Your task to perform on an android device: Open Chrome and go to settings Image 0: 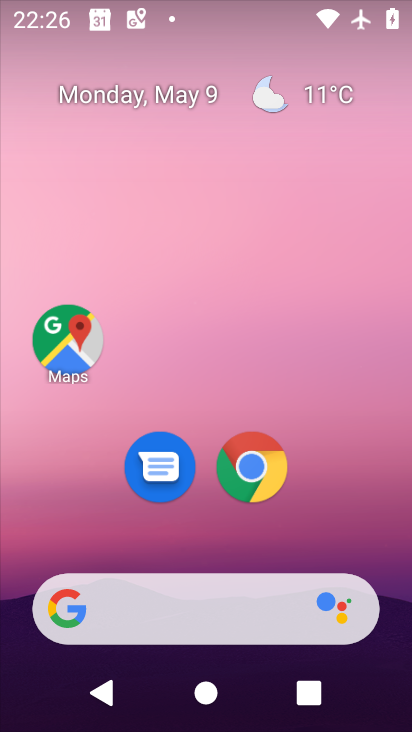
Step 0: drag from (339, 290) to (347, 196)
Your task to perform on an android device: Open Chrome and go to settings Image 1: 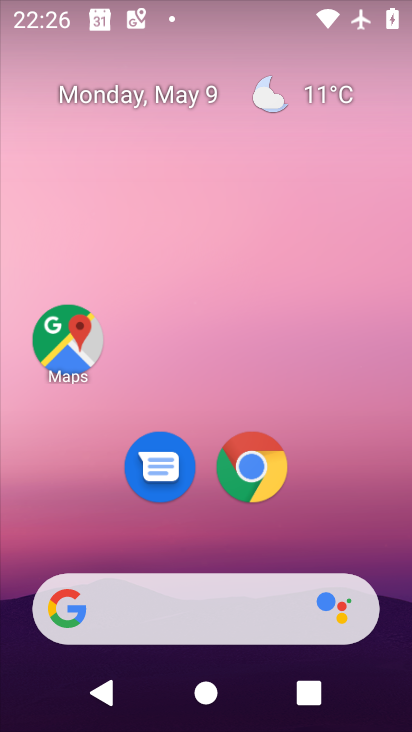
Step 1: drag from (328, 446) to (337, 232)
Your task to perform on an android device: Open Chrome and go to settings Image 2: 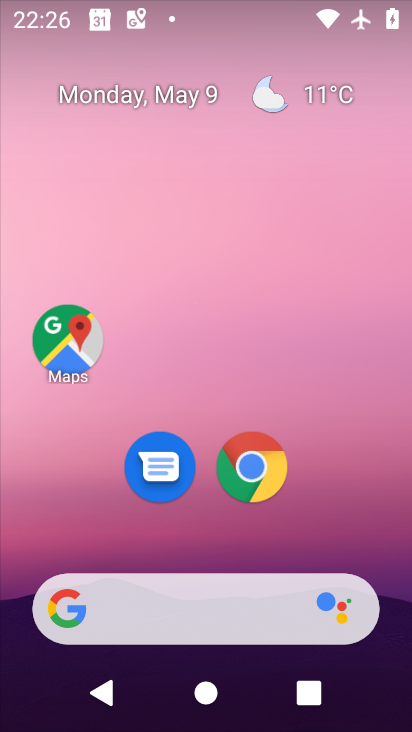
Step 2: click (246, 456)
Your task to perform on an android device: Open Chrome and go to settings Image 3: 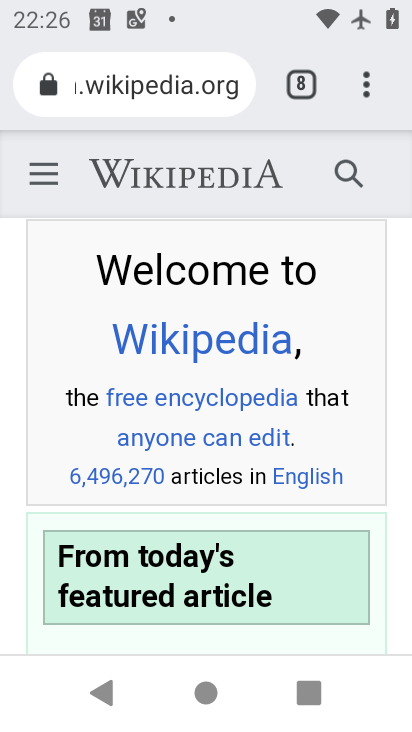
Step 3: click (348, 78)
Your task to perform on an android device: Open Chrome and go to settings Image 4: 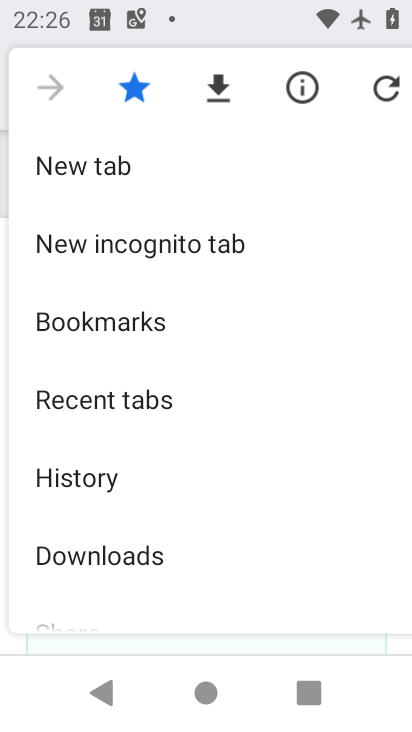
Step 4: drag from (159, 536) to (322, 187)
Your task to perform on an android device: Open Chrome and go to settings Image 5: 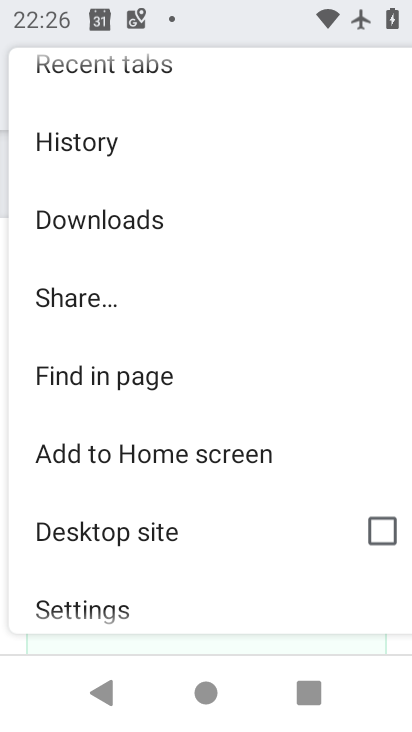
Step 5: click (79, 611)
Your task to perform on an android device: Open Chrome and go to settings Image 6: 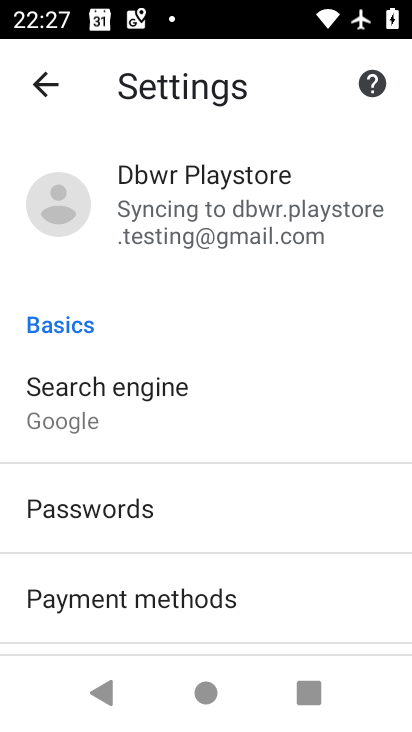
Step 6: task complete